Your task to perform on an android device: Go to Reddit.com Image 0: 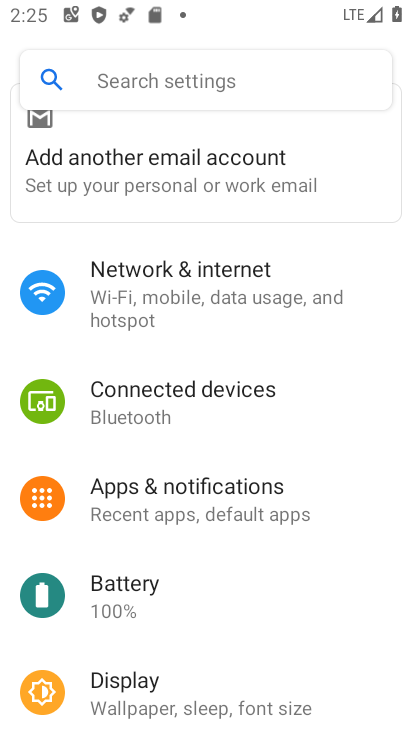
Step 0: press home button
Your task to perform on an android device: Go to Reddit.com Image 1: 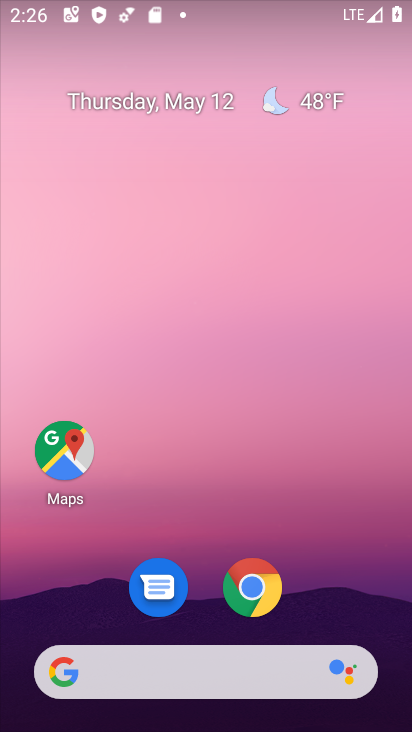
Step 1: click (263, 606)
Your task to perform on an android device: Go to Reddit.com Image 2: 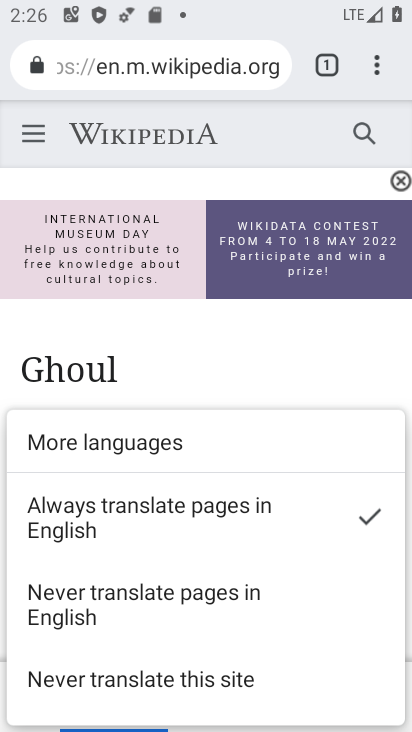
Step 2: click (257, 61)
Your task to perform on an android device: Go to Reddit.com Image 3: 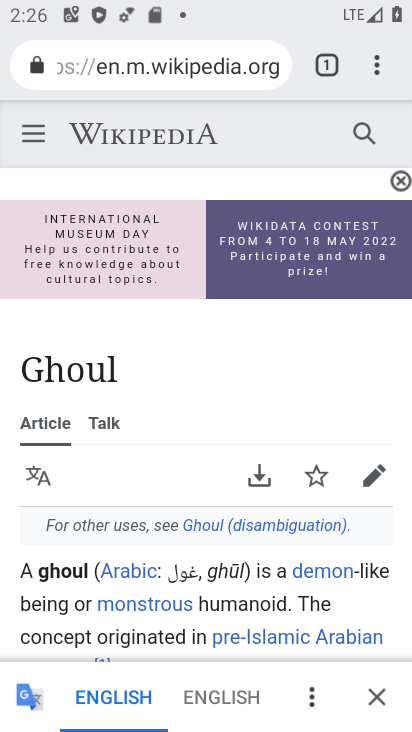
Step 3: click (244, 72)
Your task to perform on an android device: Go to Reddit.com Image 4: 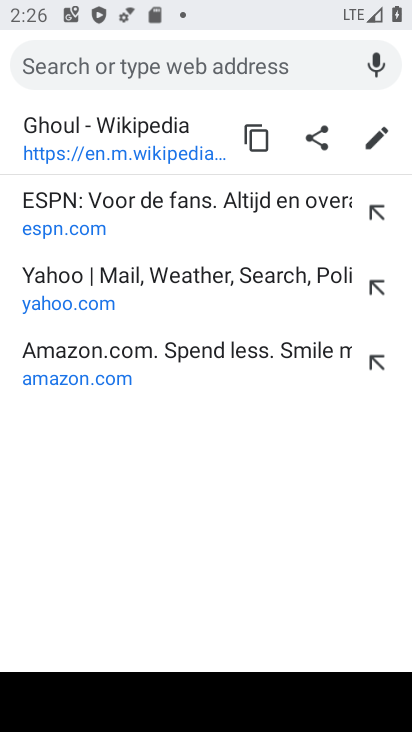
Step 4: type "reddit"
Your task to perform on an android device: Go to Reddit.com Image 5: 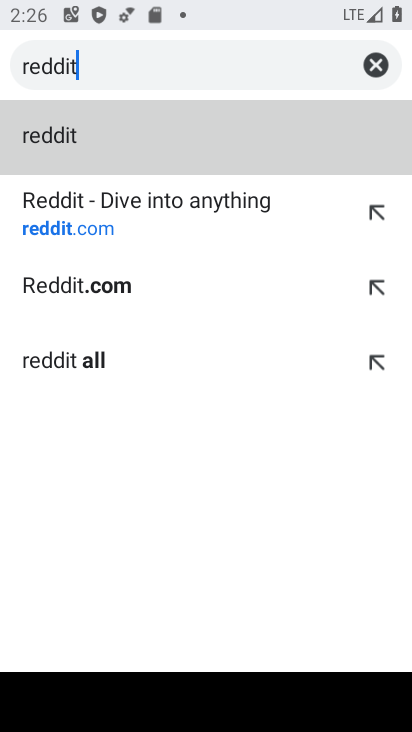
Step 5: click (275, 218)
Your task to perform on an android device: Go to Reddit.com Image 6: 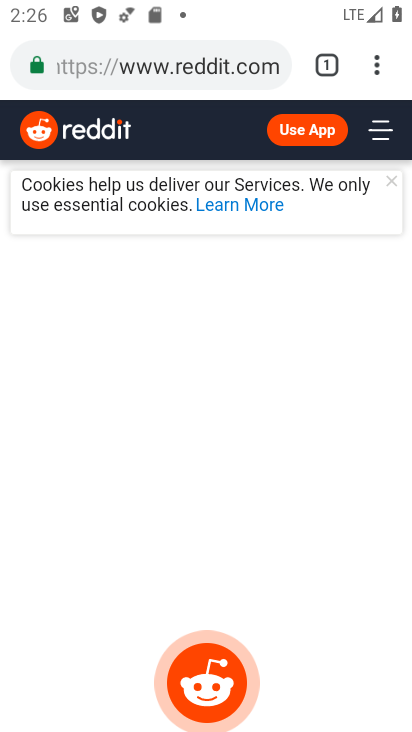
Step 6: task complete